Your task to perform on an android device: open device folders in google photos Image 0: 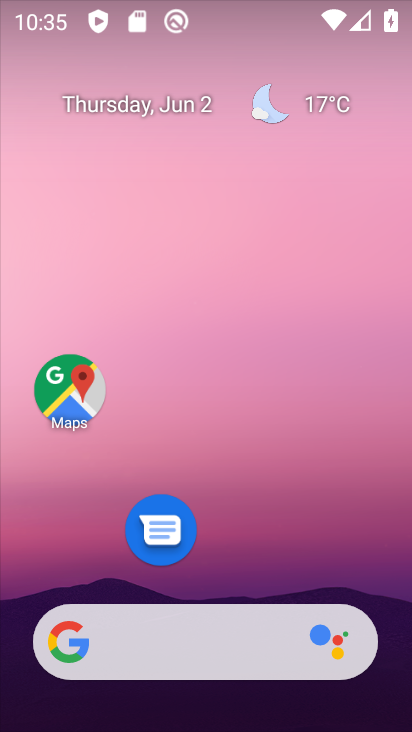
Step 0: drag from (255, 640) to (200, 226)
Your task to perform on an android device: open device folders in google photos Image 1: 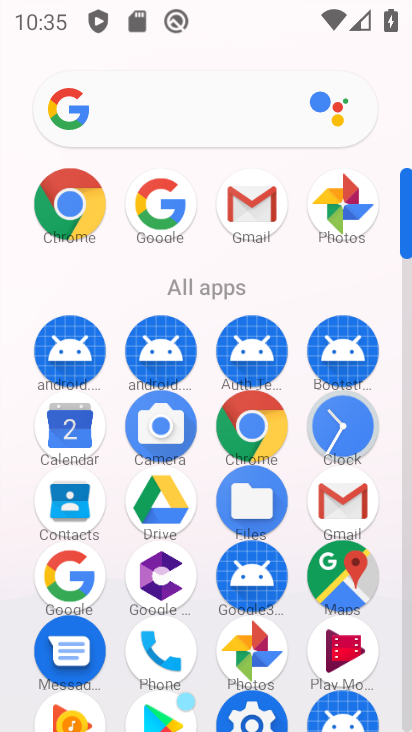
Step 1: click (256, 655)
Your task to perform on an android device: open device folders in google photos Image 2: 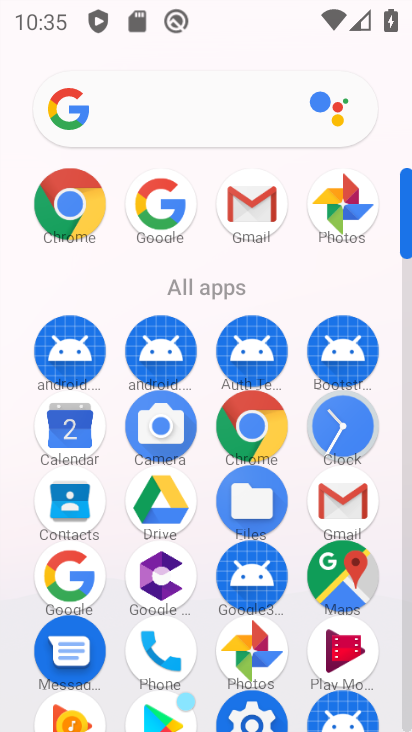
Step 2: click (256, 655)
Your task to perform on an android device: open device folders in google photos Image 3: 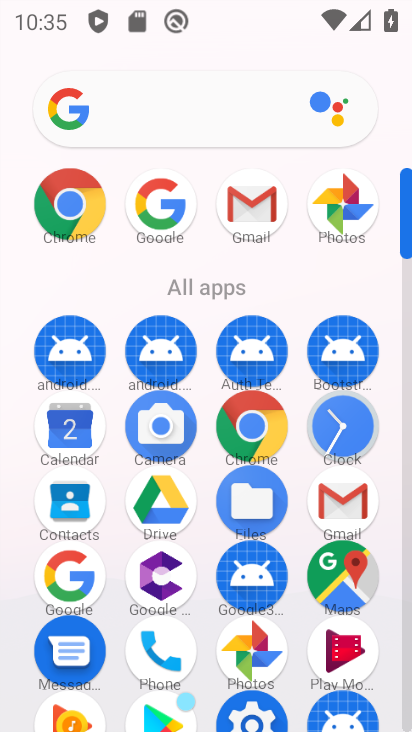
Step 3: click (253, 663)
Your task to perform on an android device: open device folders in google photos Image 4: 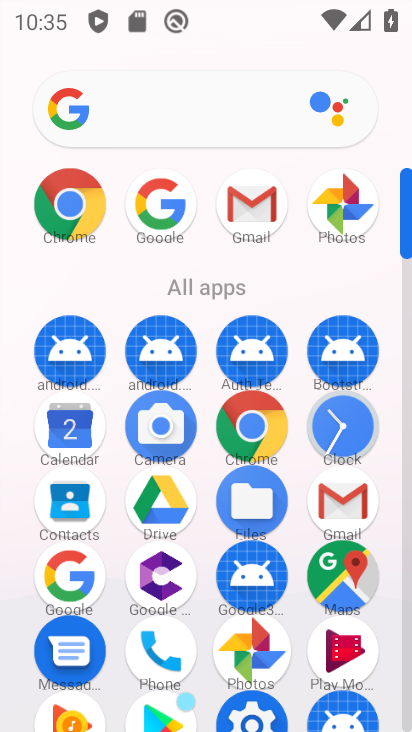
Step 4: click (252, 661)
Your task to perform on an android device: open device folders in google photos Image 5: 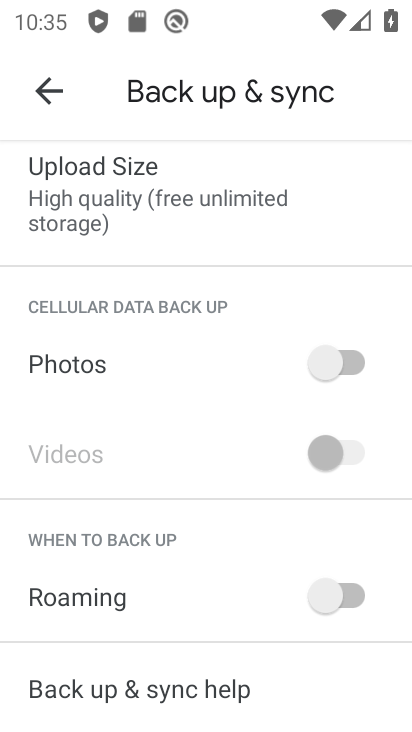
Step 5: click (44, 97)
Your task to perform on an android device: open device folders in google photos Image 6: 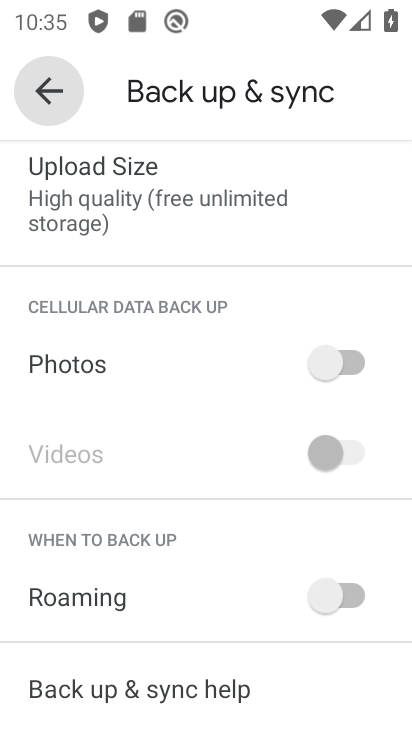
Step 6: click (45, 96)
Your task to perform on an android device: open device folders in google photos Image 7: 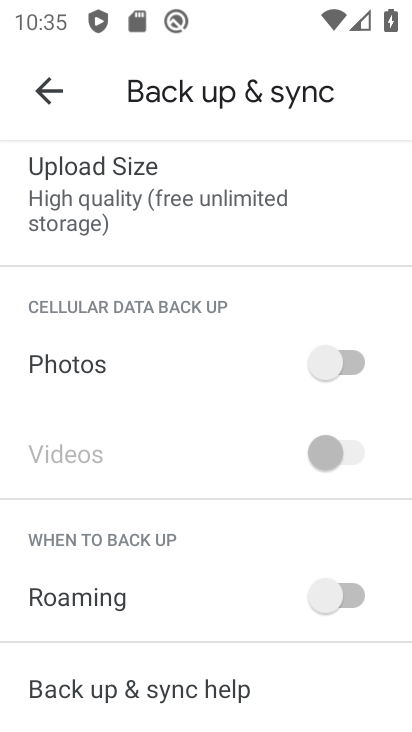
Step 7: click (46, 95)
Your task to perform on an android device: open device folders in google photos Image 8: 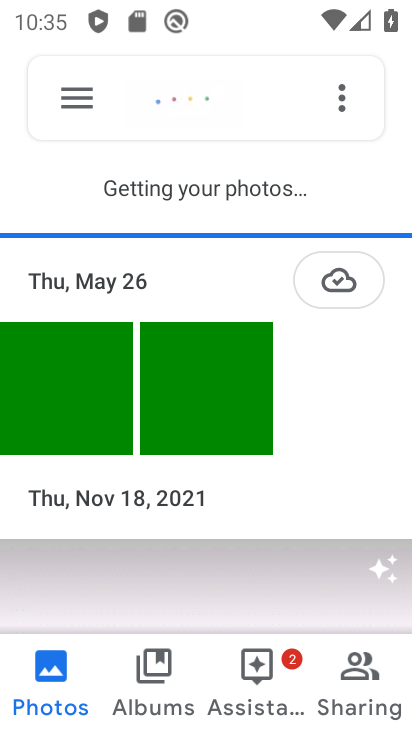
Step 8: click (77, 104)
Your task to perform on an android device: open device folders in google photos Image 9: 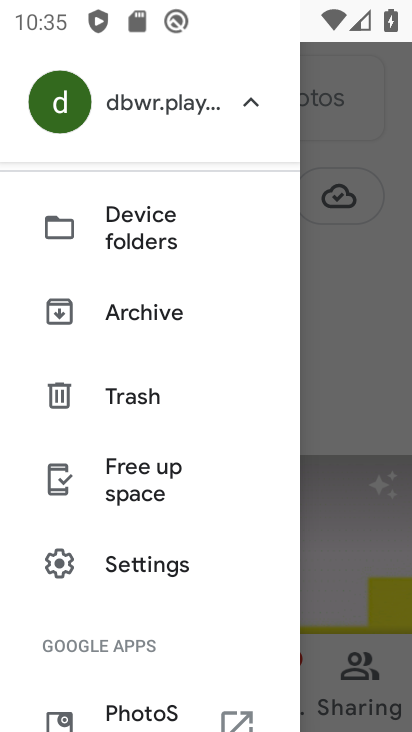
Step 9: click (130, 243)
Your task to perform on an android device: open device folders in google photos Image 10: 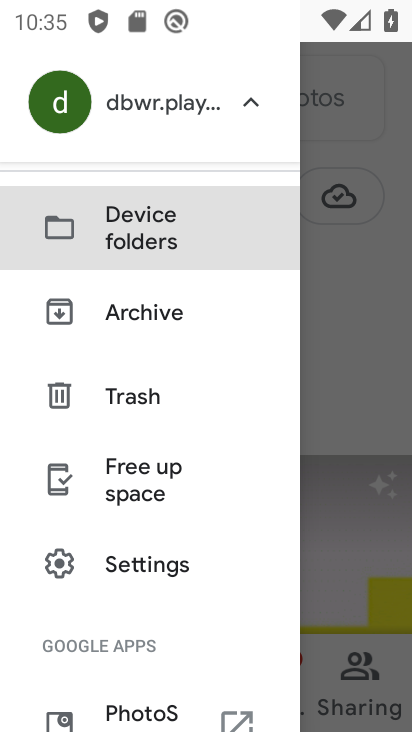
Step 10: click (130, 243)
Your task to perform on an android device: open device folders in google photos Image 11: 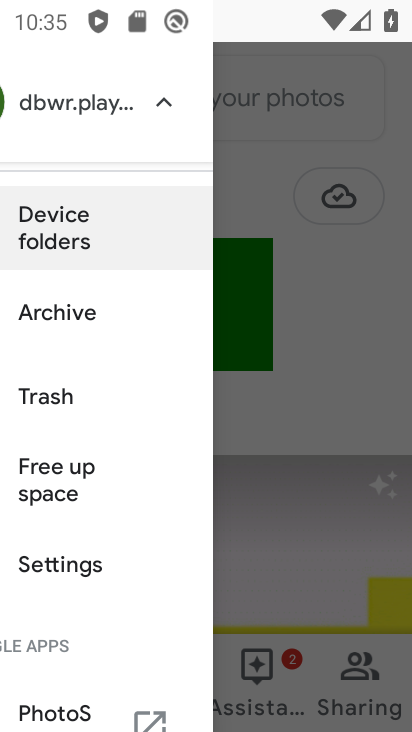
Step 11: click (130, 243)
Your task to perform on an android device: open device folders in google photos Image 12: 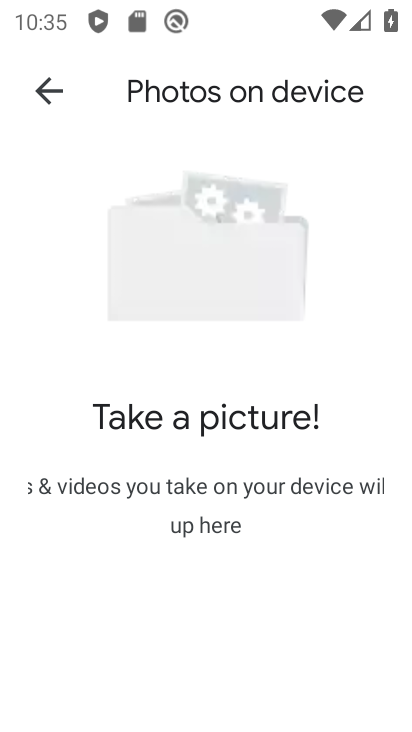
Step 12: task complete